Your task to perform on an android device: turn off location history Image 0: 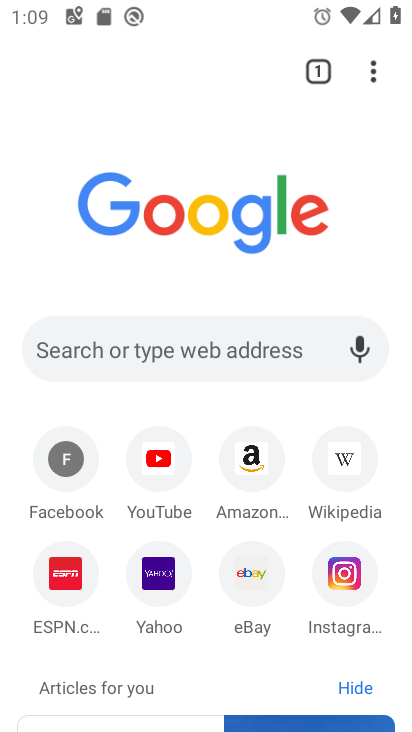
Step 0: press back button
Your task to perform on an android device: turn off location history Image 1: 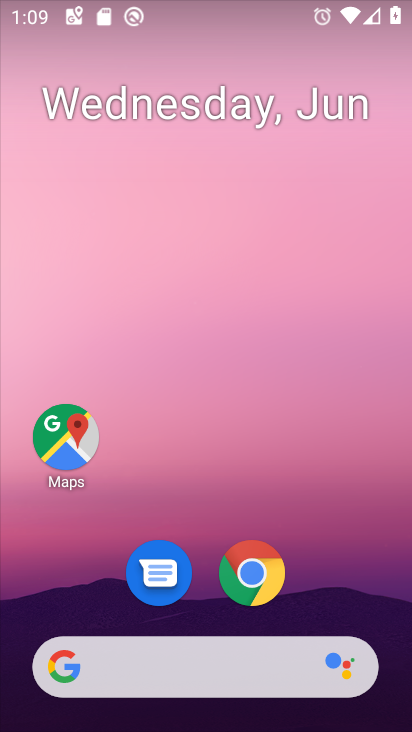
Step 1: drag from (233, 406) to (289, 20)
Your task to perform on an android device: turn off location history Image 2: 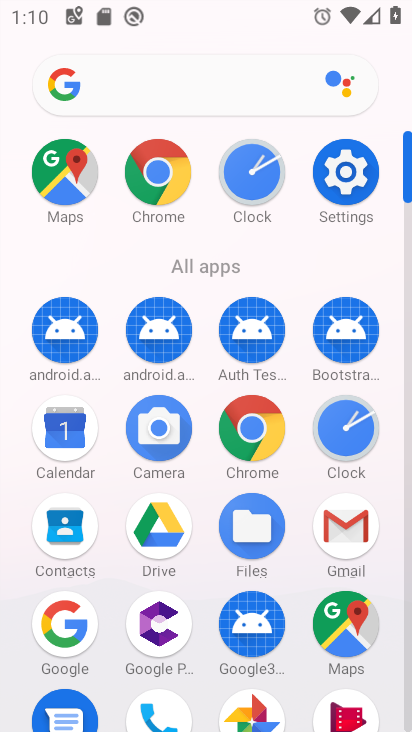
Step 2: click (344, 169)
Your task to perform on an android device: turn off location history Image 3: 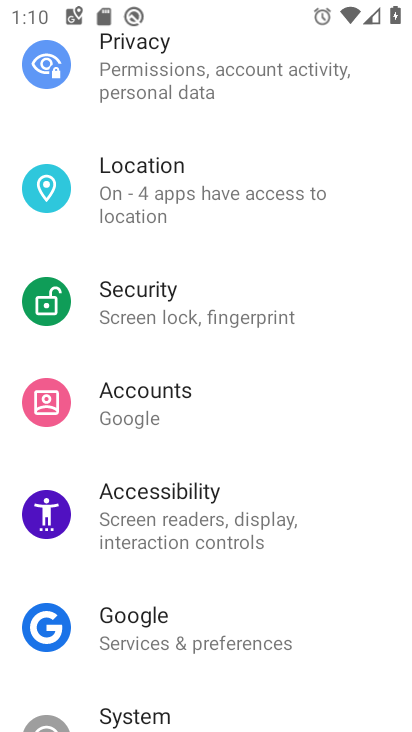
Step 3: click (141, 198)
Your task to perform on an android device: turn off location history Image 4: 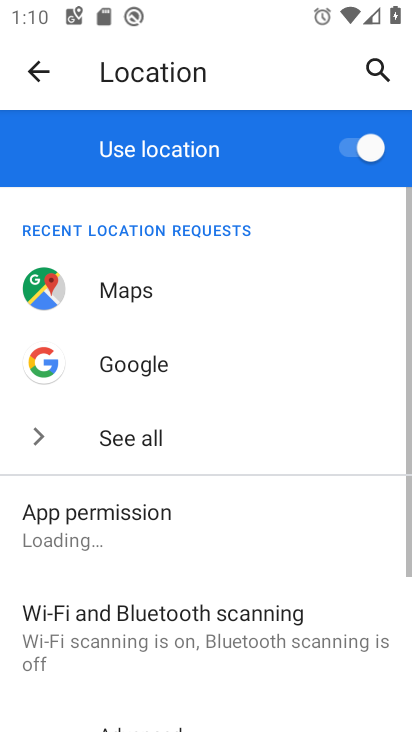
Step 4: drag from (139, 641) to (224, 146)
Your task to perform on an android device: turn off location history Image 5: 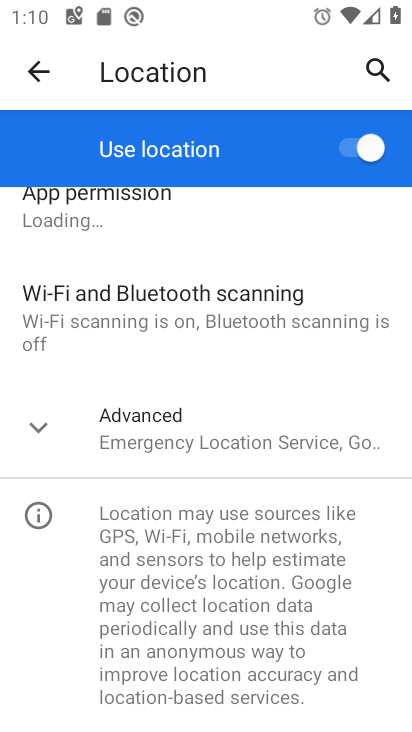
Step 5: click (179, 432)
Your task to perform on an android device: turn off location history Image 6: 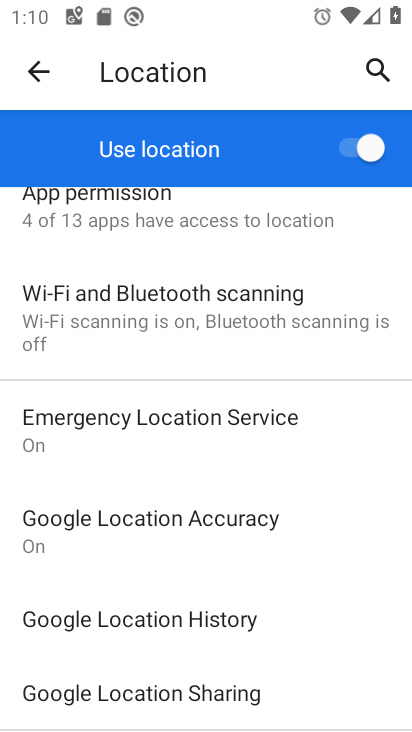
Step 6: click (153, 613)
Your task to perform on an android device: turn off location history Image 7: 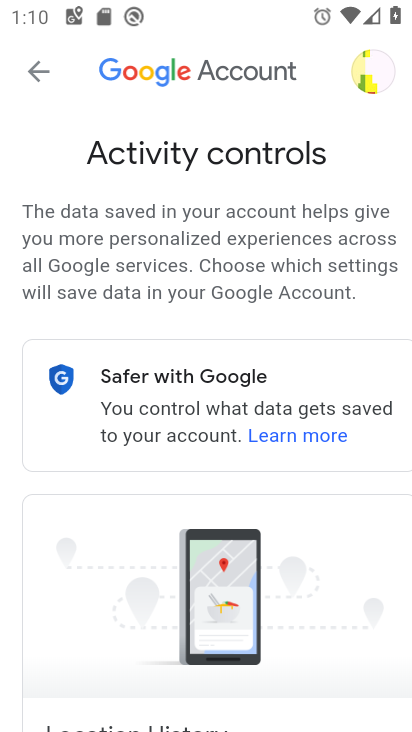
Step 7: drag from (215, 590) to (208, 140)
Your task to perform on an android device: turn off location history Image 8: 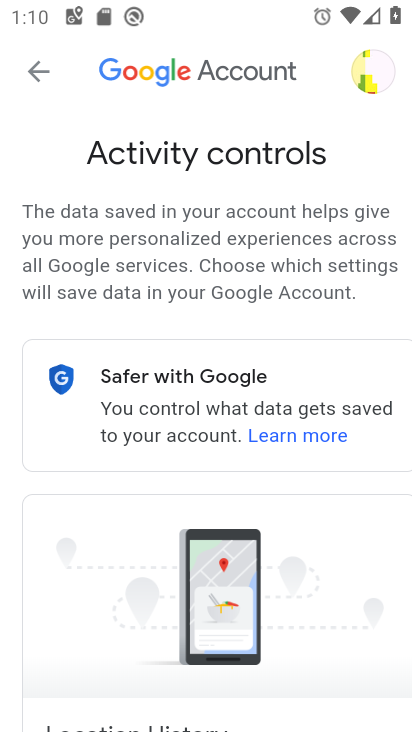
Step 8: drag from (233, 585) to (233, 117)
Your task to perform on an android device: turn off location history Image 9: 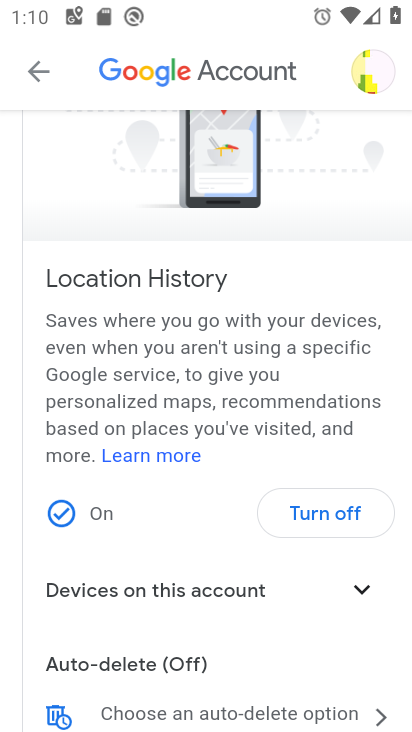
Step 9: click (316, 524)
Your task to perform on an android device: turn off location history Image 10: 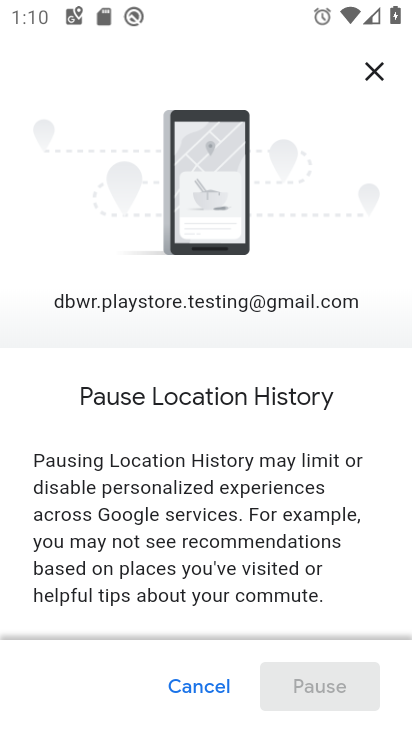
Step 10: drag from (266, 593) to (290, 78)
Your task to perform on an android device: turn off location history Image 11: 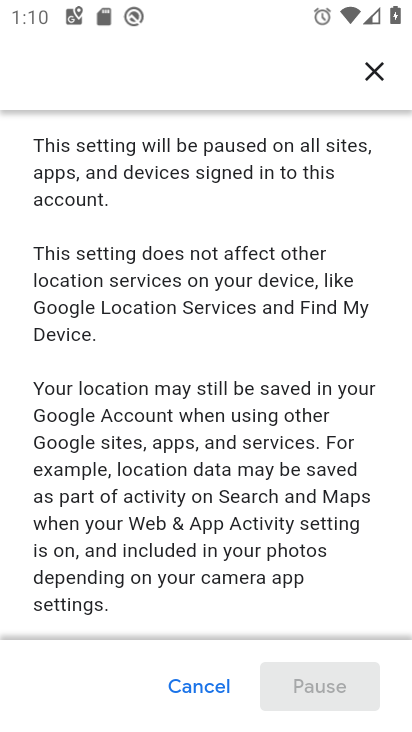
Step 11: drag from (247, 597) to (305, 99)
Your task to perform on an android device: turn off location history Image 12: 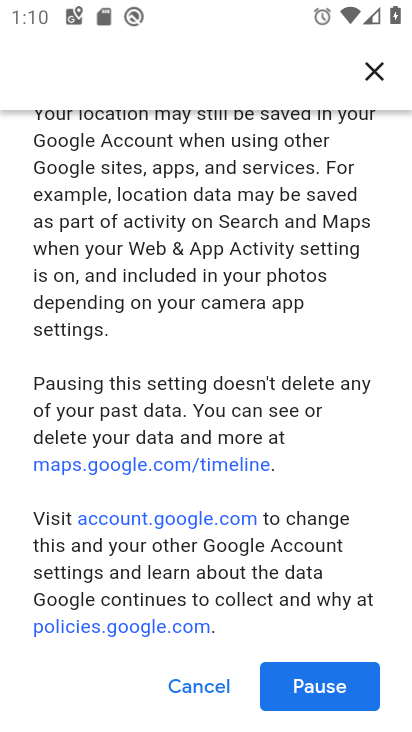
Step 12: click (316, 684)
Your task to perform on an android device: turn off location history Image 13: 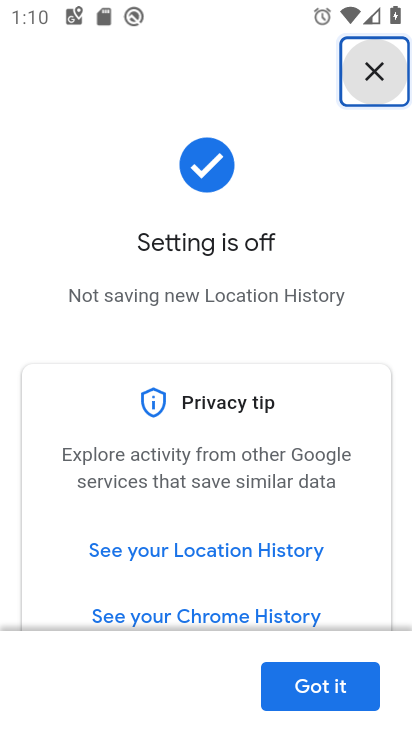
Step 13: click (306, 674)
Your task to perform on an android device: turn off location history Image 14: 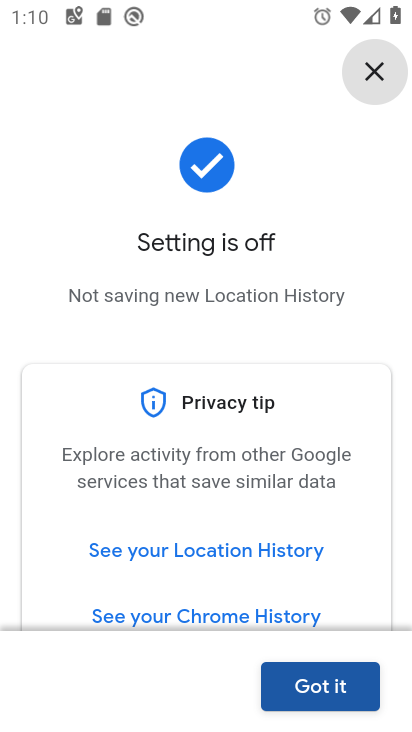
Step 14: click (323, 677)
Your task to perform on an android device: turn off location history Image 15: 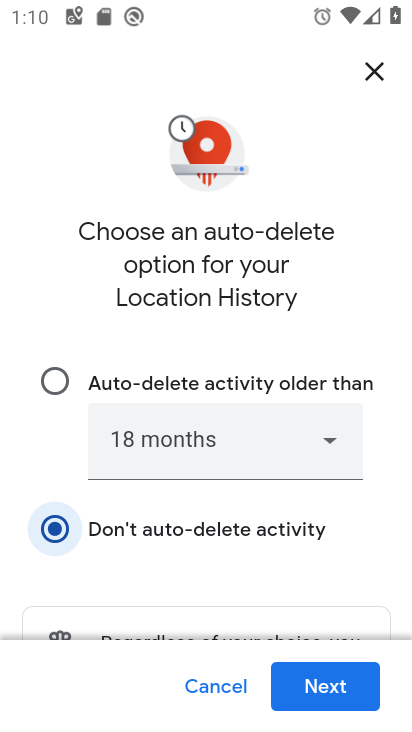
Step 15: click (372, 64)
Your task to perform on an android device: turn off location history Image 16: 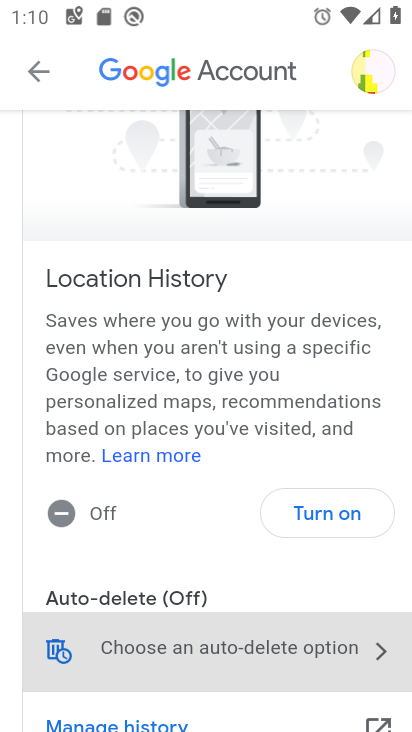
Step 16: task complete